Your task to perform on an android device: Go to ESPN.com Image 0: 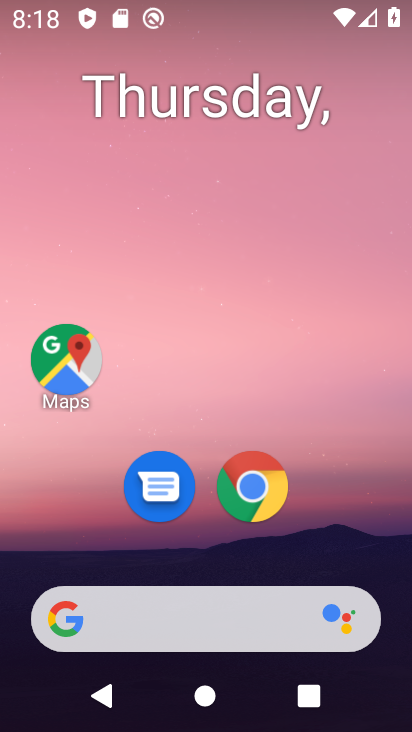
Step 0: click (231, 488)
Your task to perform on an android device: Go to ESPN.com Image 1: 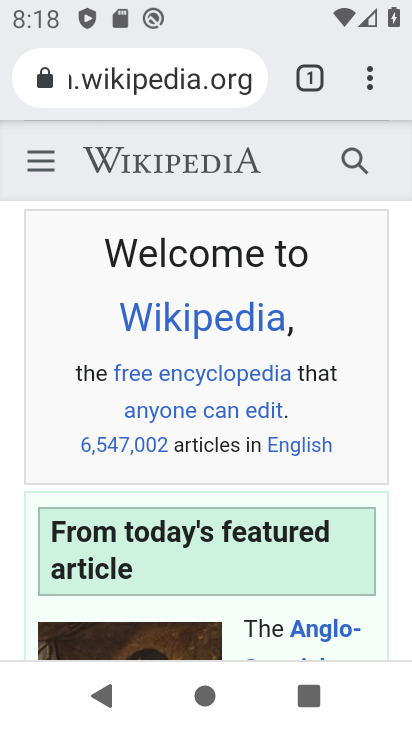
Step 1: click (310, 74)
Your task to perform on an android device: Go to ESPN.com Image 2: 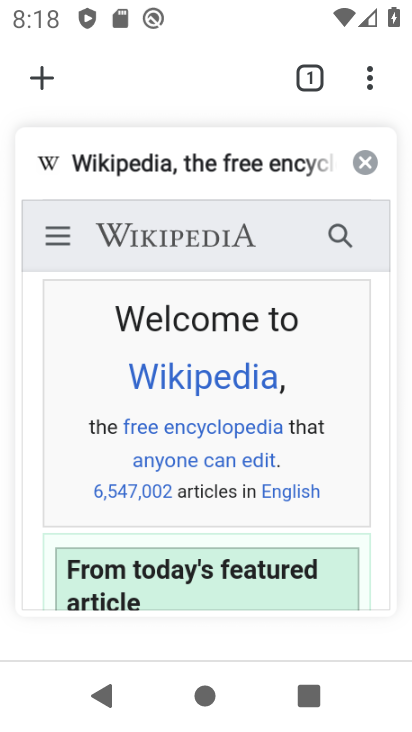
Step 2: click (34, 69)
Your task to perform on an android device: Go to ESPN.com Image 3: 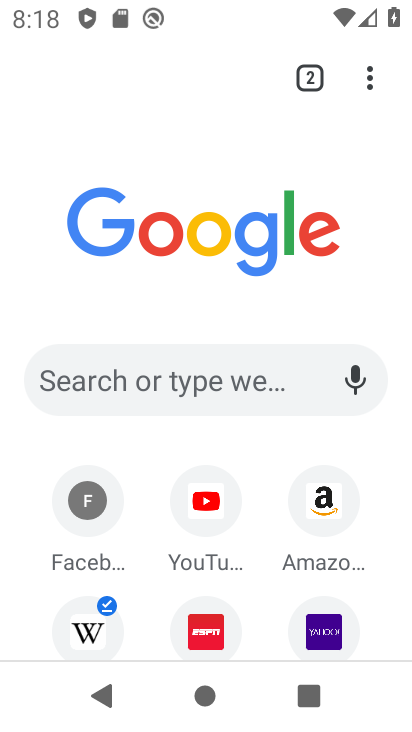
Step 3: click (198, 632)
Your task to perform on an android device: Go to ESPN.com Image 4: 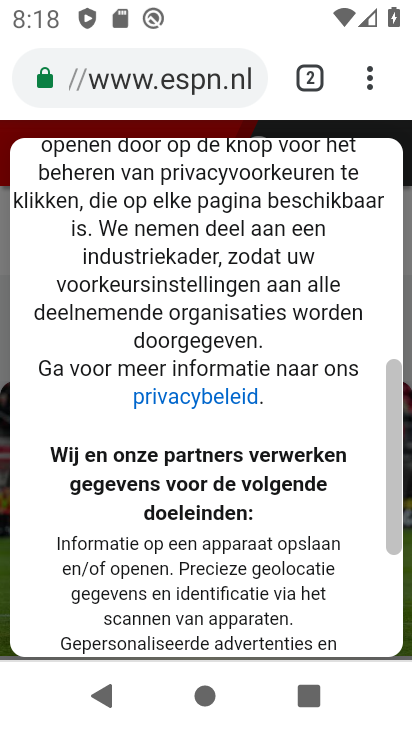
Step 4: task complete